Your task to perform on an android device: Open Google Chrome and click the shortcut for Amazon.com Image 0: 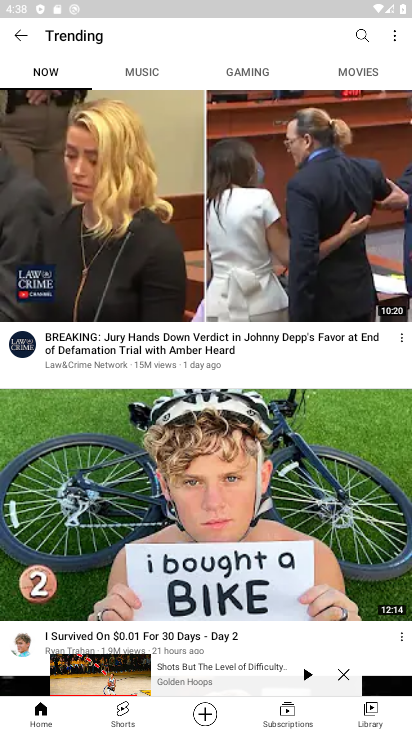
Step 0: press home button
Your task to perform on an android device: Open Google Chrome and click the shortcut for Amazon.com Image 1: 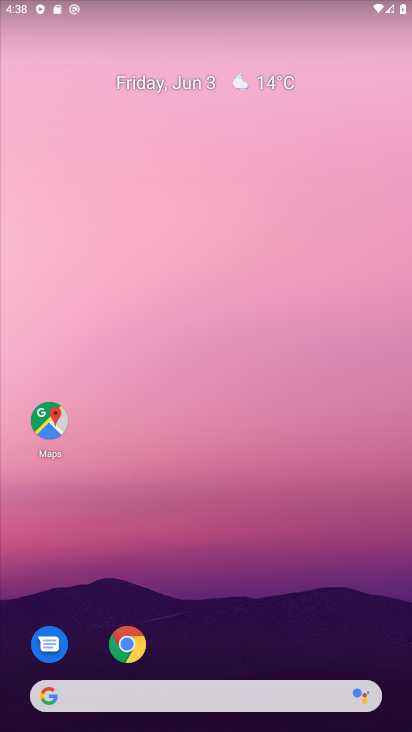
Step 1: click (139, 644)
Your task to perform on an android device: Open Google Chrome and click the shortcut for Amazon.com Image 2: 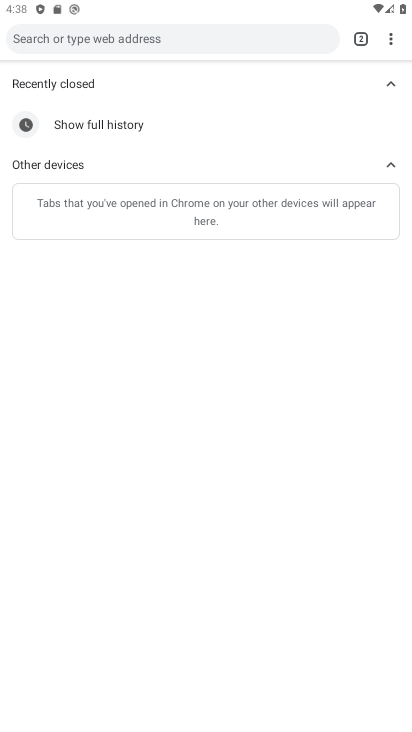
Step 2: click (362, 48)
Your task to perform on an android device: Open Google Chrome and click the shortcut for Amazon.com Image 3: 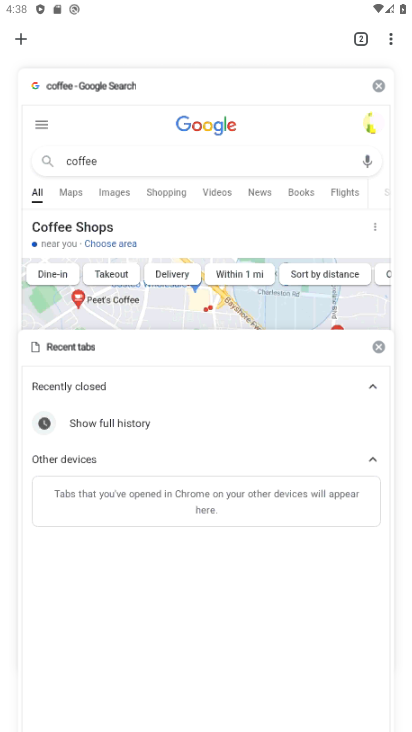
Step 3: click (24, 44)
Your task to perform on an android device: Open Google Chrome and click the shortcut for Amazon.com Image 4: 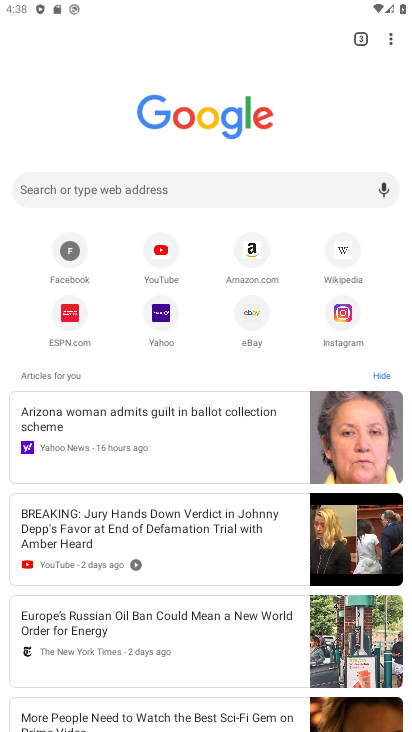
Step 4: click (247, 241)
Your task to perform on an android device: Open Google Chrome and click the shortcut for Amazon.com Image 5: 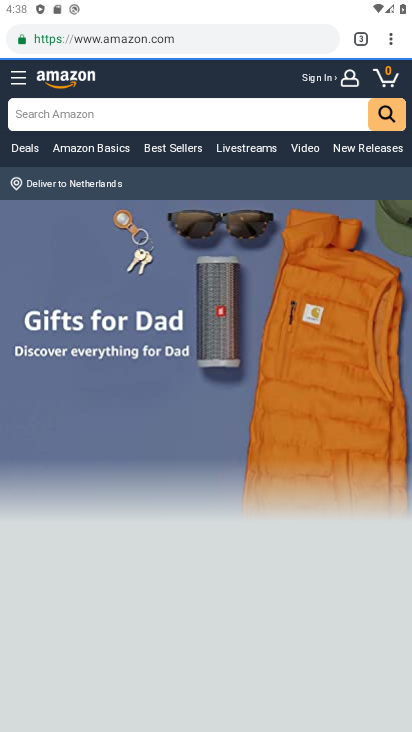
Step 5: task complete